Your task to perform on an android device: open a new tab in the chrome app Image 0: 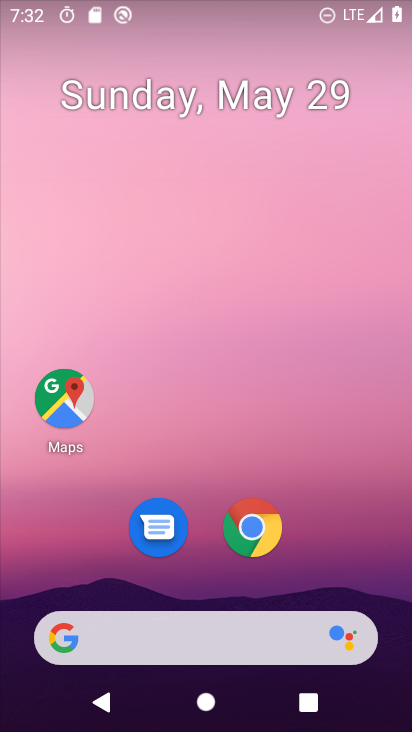
Step 0: drag from (389, 605) to (269, 0)
Your task to perform on an android device: open a new tab in the chrome app Image 1: 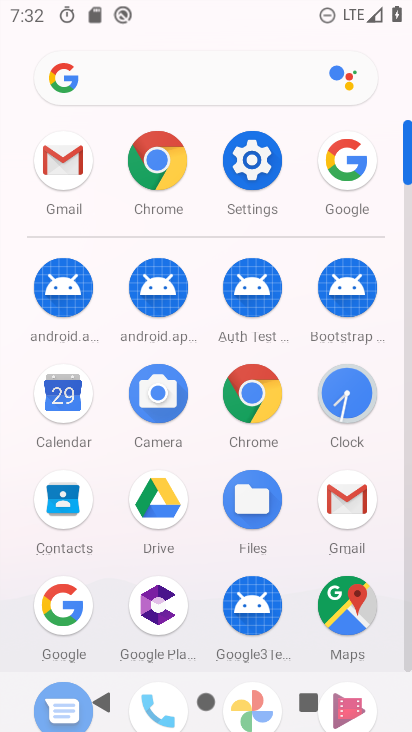
Step 1: click (142, 180)
Your task to perform on an android device: open a new tab in the chrome app Image 2: 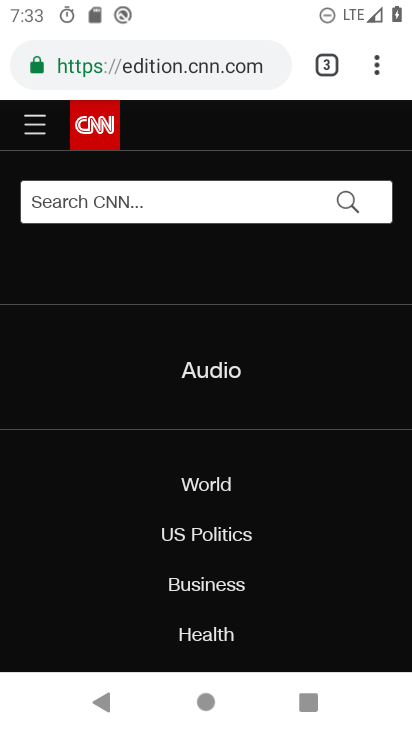
Step 2: press back button
Your task to perform on an android device: open a new tab in the chrome app Image 3: 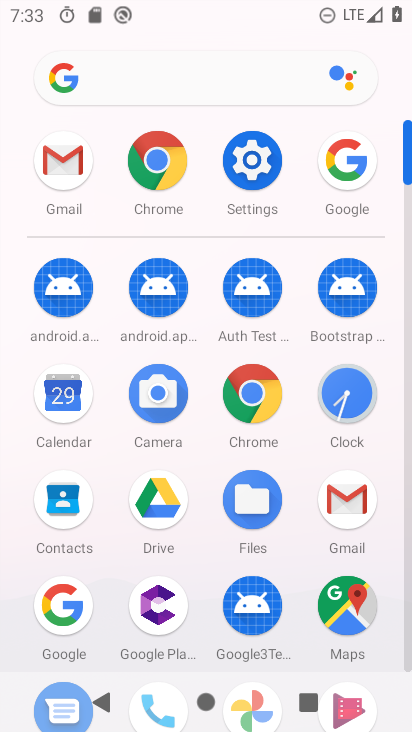
Step 3: click (161, 173)
Your task to perform on an android device: open a new tab in the chrome app Image 4: 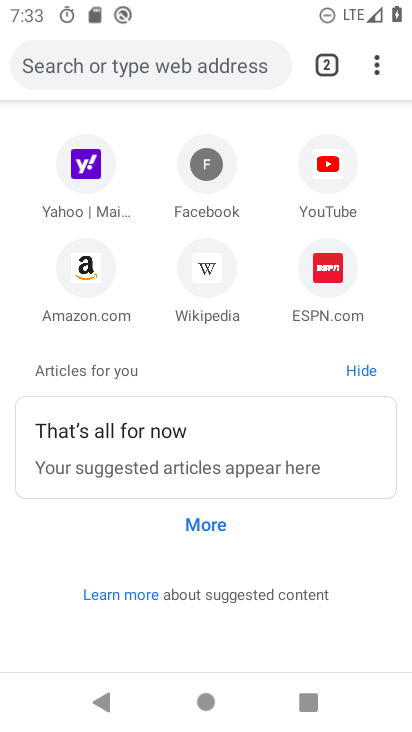
Step 4: click (381, 61)
Your task to perform on an android device: open a new tab in the chrome app Image 5: 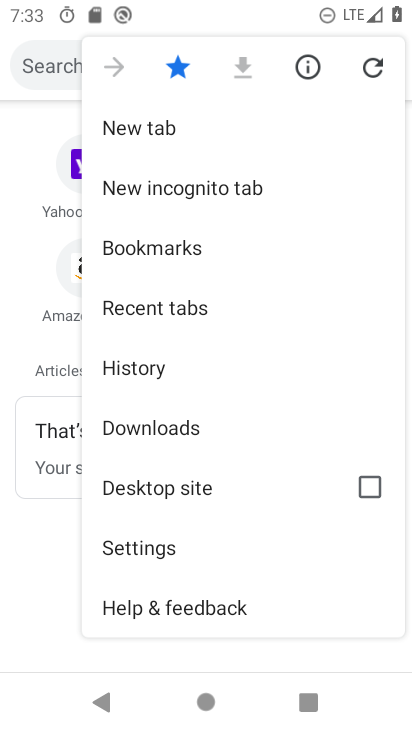
Step 5: click (175, 133)
Your task to perform on an android device: open a new tab in the chrome app Image 6: 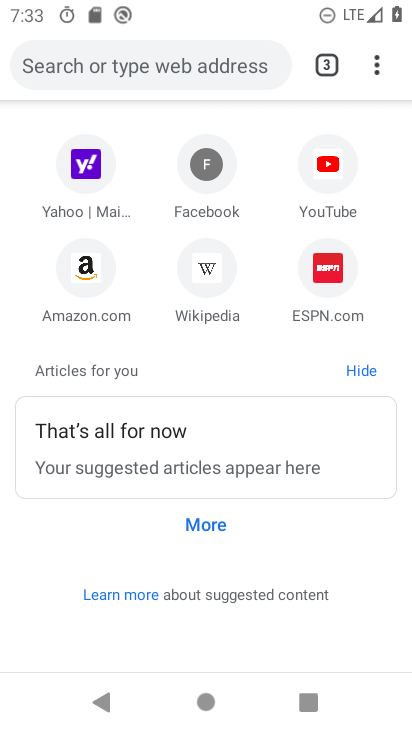
Step 6: task complete